Your task to perform on an android device: Search for the best rated vacuums on Target Image 0: 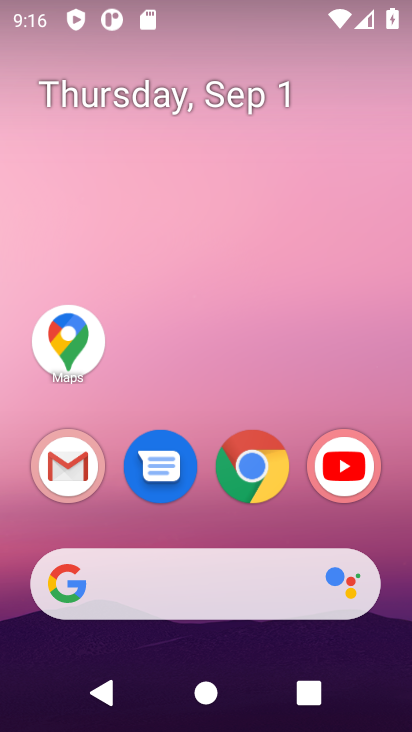
Step 0: drag from (387, 481) to (375, 55)
Your task to perform on an android device: Search for the best rated vacuums on Target Image 1: 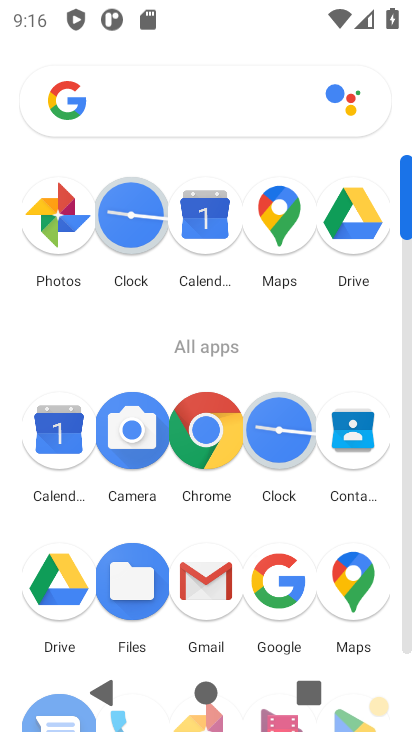
Step 1: click (210, 427)
Your task to perform on an android device: Search for the best rated vacuums on Target Image 2: 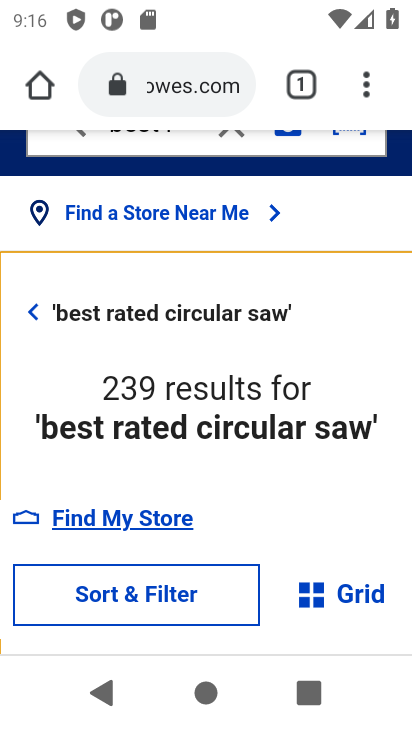
Step 2: click (193, 80)
Your task to perform on an android device: Search for the best rated vacuums on Target Image 3: 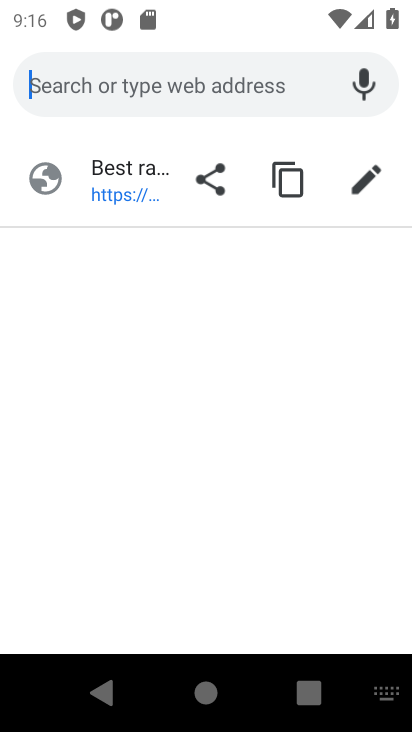
Step 3: type "target"
Your task to perform on an android device: Search for the best rated vacuums on Target Image 4: 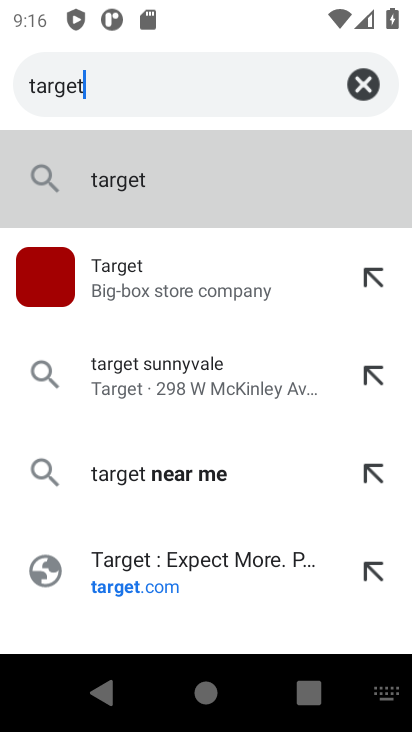
Step 4: press enter
Your task to perform on an android device: Search for the best rated vacuums on Target Image 5: 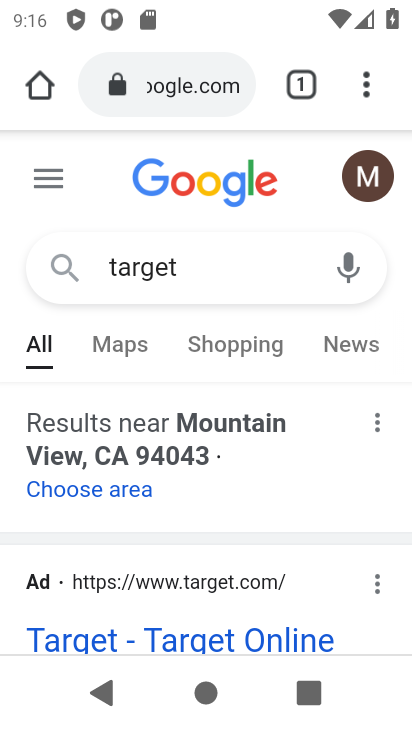
Step 5: drag from (315, 470) to (310, 301)
Your task to perform on an android device: Search for the best rated vacuums on Target Image 6: 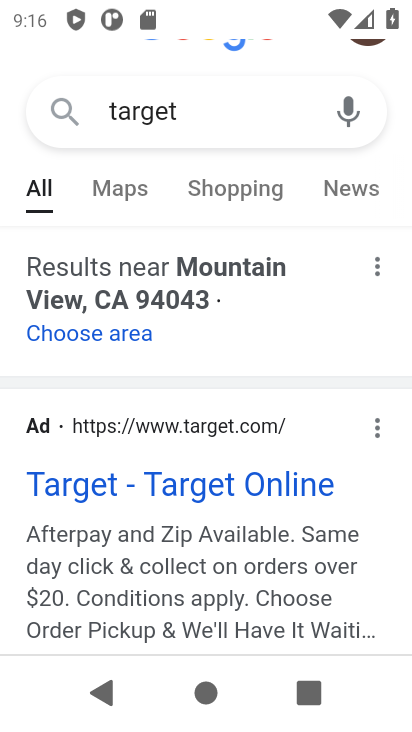
Step 6: click (278, 486)
Your task to perform on an android device: Search for the best rated vacuums on Target Image 7: 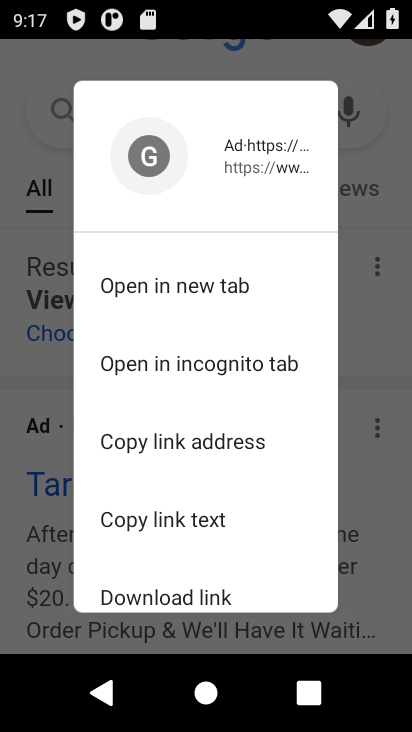
Step 7: click (396, 363)
Your task to perform on an android device: Search for the best rated vacuums on Target Image 8: 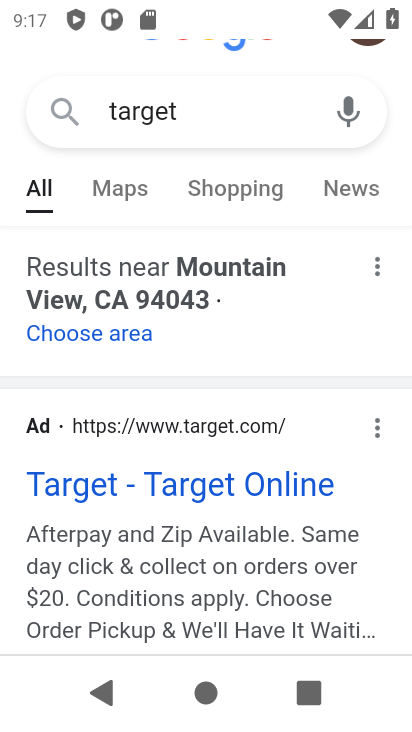
Step 8: click (257, 488)
Your task to perform on an android device: Search for the best rated vacuums on Target Image 9: 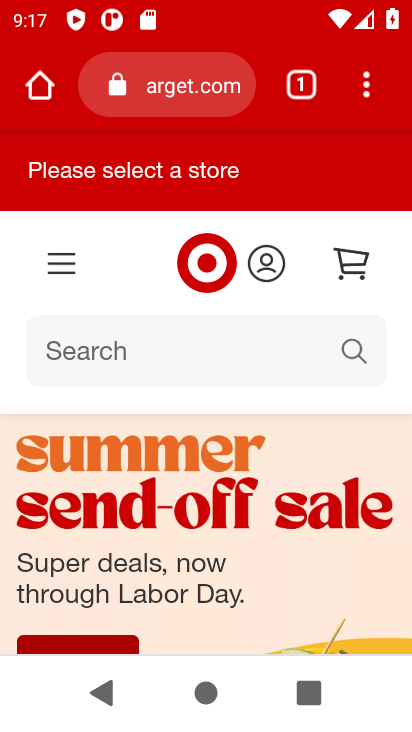
Step 9: click (172, 350)
Your task to perform on an android device: Search for the best rated vacuums on Target Image 10: 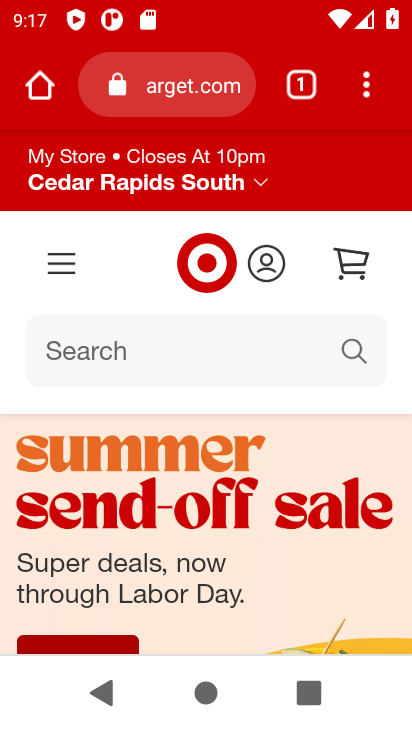
Step 10: click (59, 344)
Your task to perform on an android device: Search for the best rated vacuums on Target Image 11: 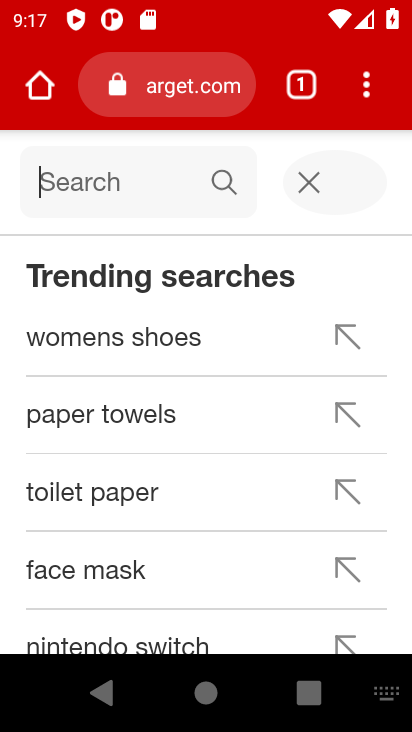
Step 11: type "best rated vacuums"
Your task to perform on an android device: Search for the best rated vacuums on Target Image 12: 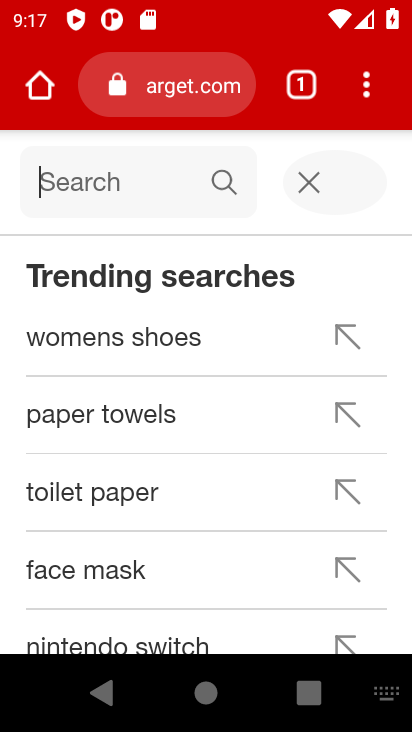
Step 12: press enter
Your task to perform on an android device: Search for the best rated vacuums on Target Image 13: 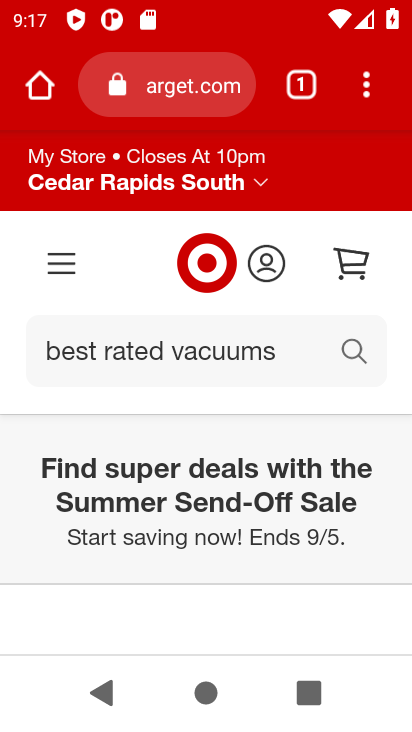
Step 13: task complete